Your task to perform on an android device: open a bookmark in the chrome app Image 0: 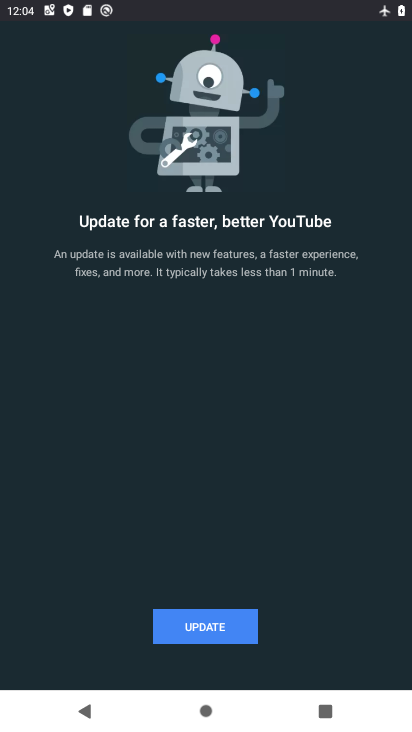
Step 0: press home button
Your task to perform on an android device: open a bookmark in the chrome app Image 1: 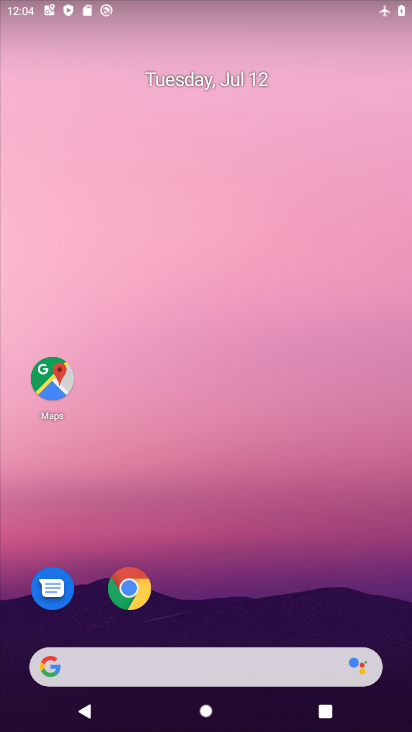
Step 1: drag from (345, 572) to (252, 30)
Your task to perform on an android device: open a bookmark in the chrome app Image 2: 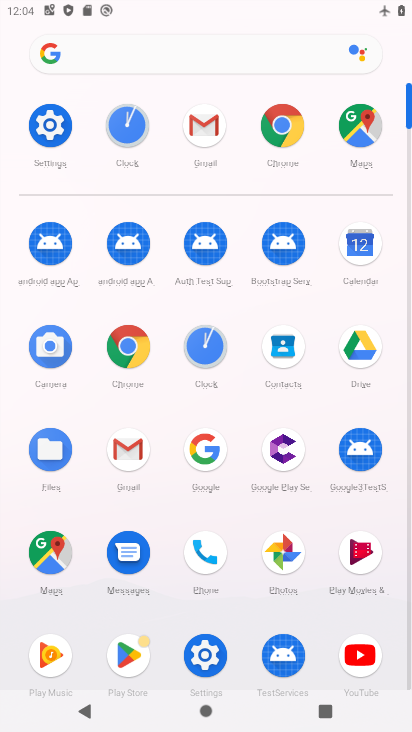
Step 2: click (283, 129)
Your task to perform on an android device: open a bookmark in the chrome app Image 3: 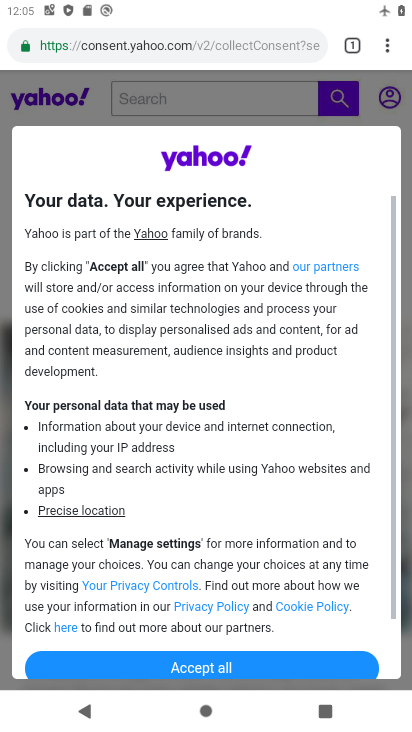
Step 3: drag from (392, 39) to (227, 180)
Your task to perform on an android device: open a bookmark in the chrome app Image 4: 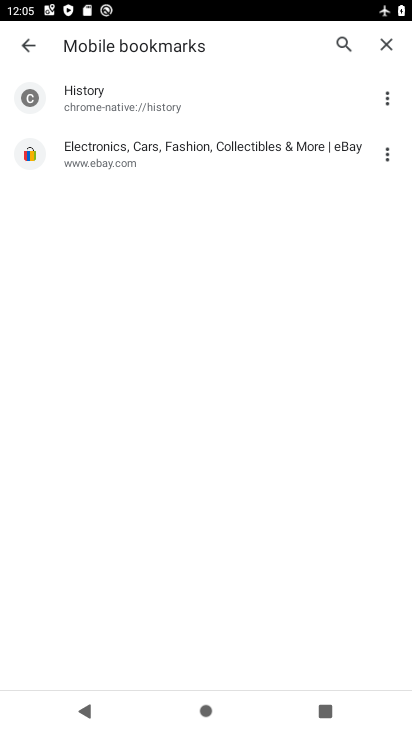
Step 4: click (293, 156)
Your task to perform on an android device: open a bookmark in the chrome app Image 5: 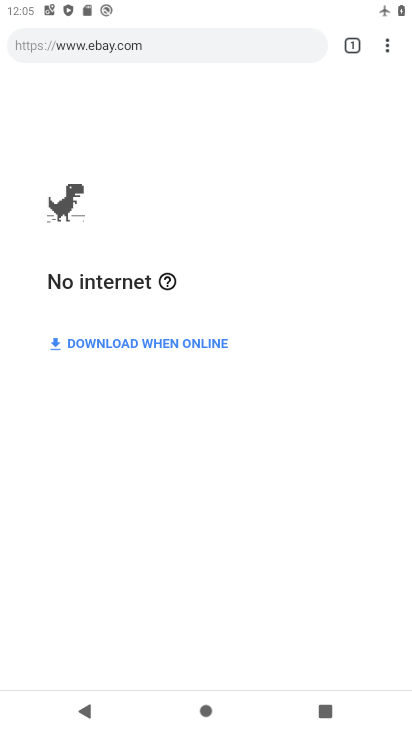
Step 5: task complete